Your task to perform on an android device: refresh tabs in the chrome app Image 0: 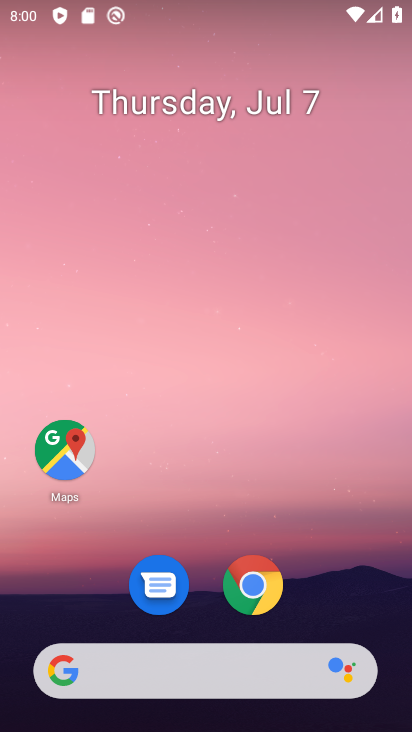
Step 0: click (258, 594)
Your task to perform on an android device: refresh tabs in the chrome app Image 1: 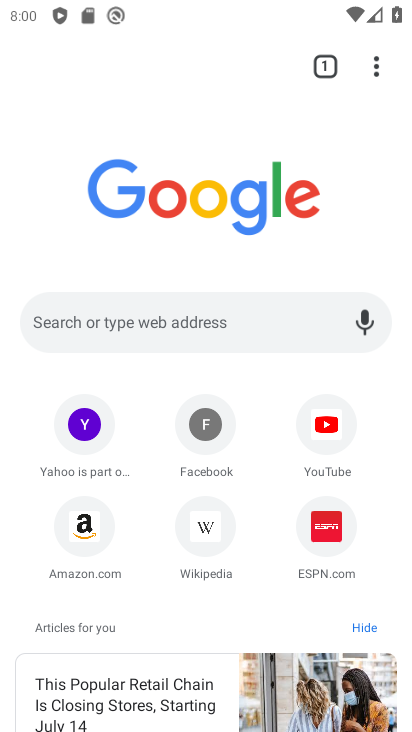
Step 1: click (369, 70)
Your task to perform on an android device: refresh tabs in the chrome app Image 2: 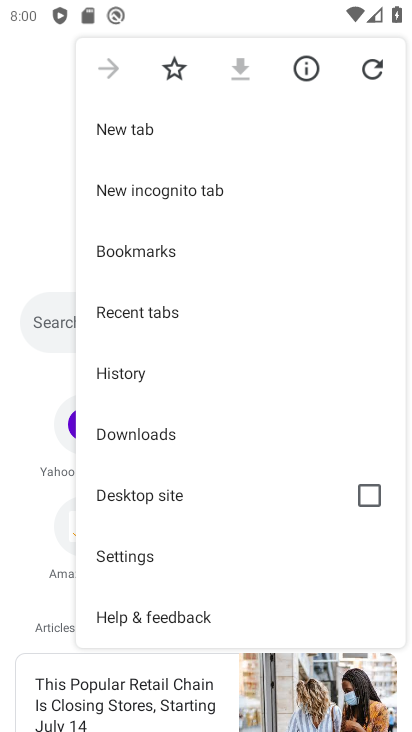
Step 2: click (369, 70)
Your task to perform on an android device: refresh tabs in the chrome app Image 3: 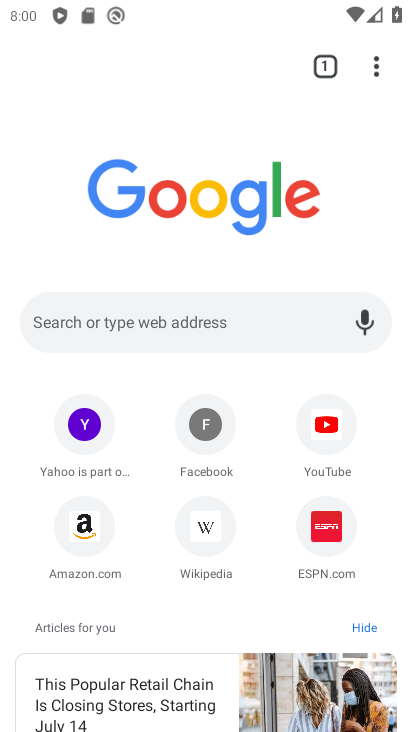
Step 3: click (378, 70)
Your task to perform on an android device: refresh tabs in the chrome app Image 4: 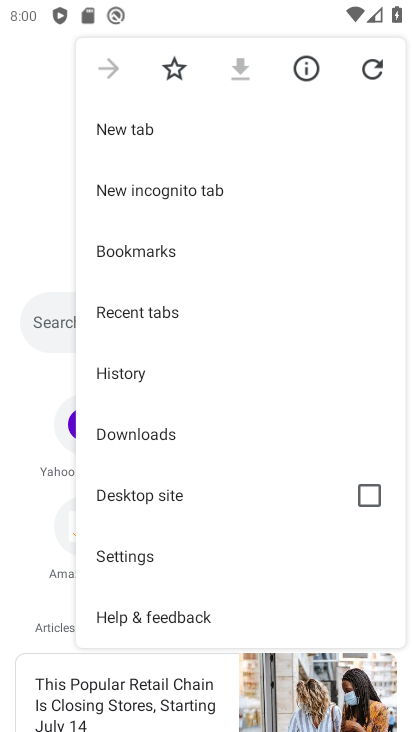
Step 4: click (372, 63)
Your task to perform on an android device: refresh tabs in the chrome app Image 5: 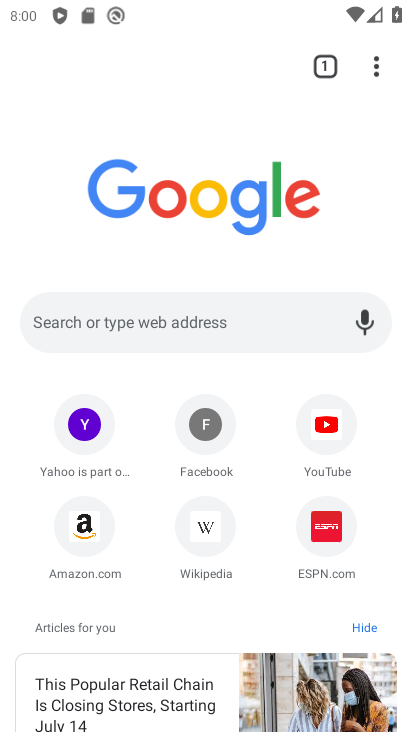
Step 5: task complete